Your task to perform on an android device: find snoozed emails in the gmail app Image 0: 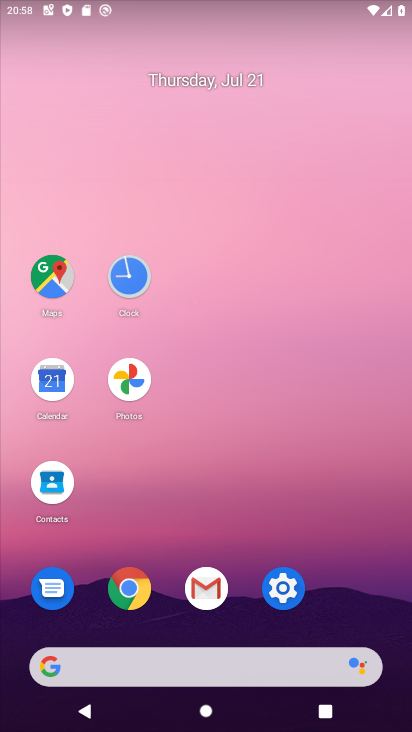
Step 0: click (204, 588)
Your task to perform on an android device: find snoozed emails in the gmail app Image 1: 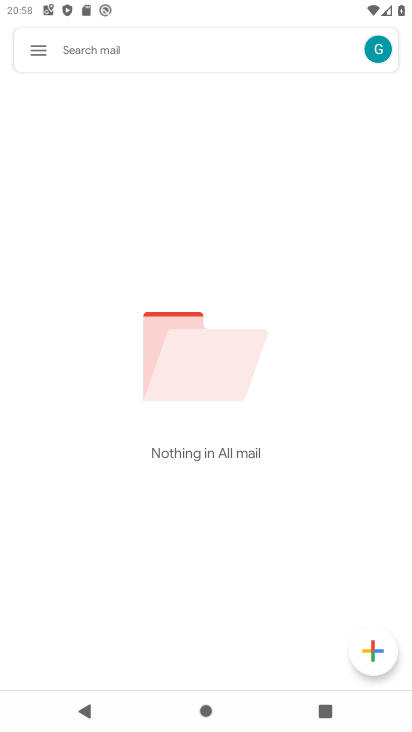
Step 1: click (39, 49)
Your task to perform on an android device: find snoozed emails in the gmail app Image 2: 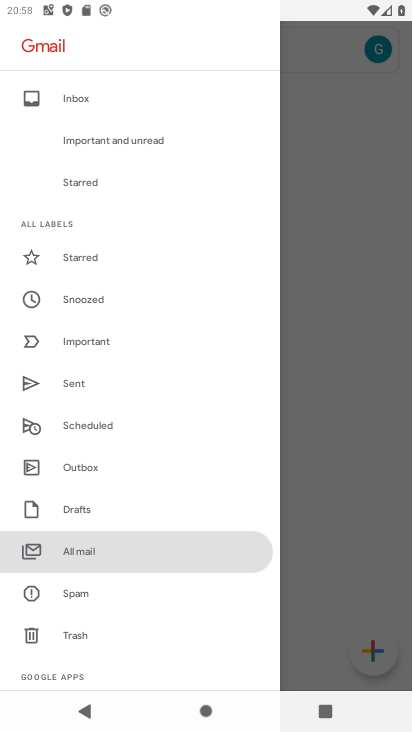
Step 2: click (84, 297)
Your task to perform on an android device: find snoozed emails in the gmail app Image 3: 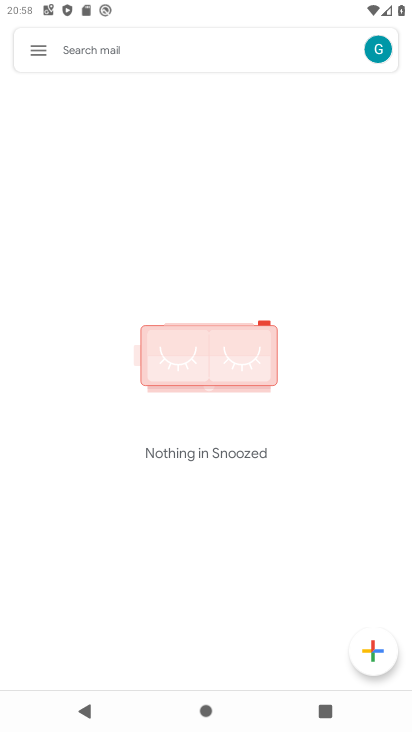
Step 3: task complete